Your task to perform on an android device: Go to ESPN.com Image 0: 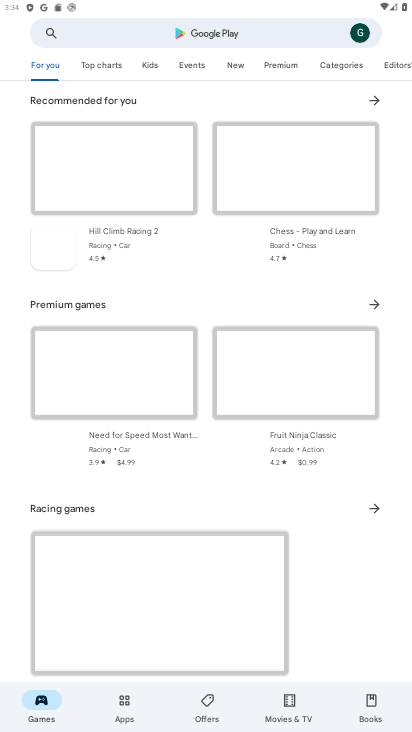
Step 0: press home button
Your task to perform on an android device: Go to ESPN.com Image 1: 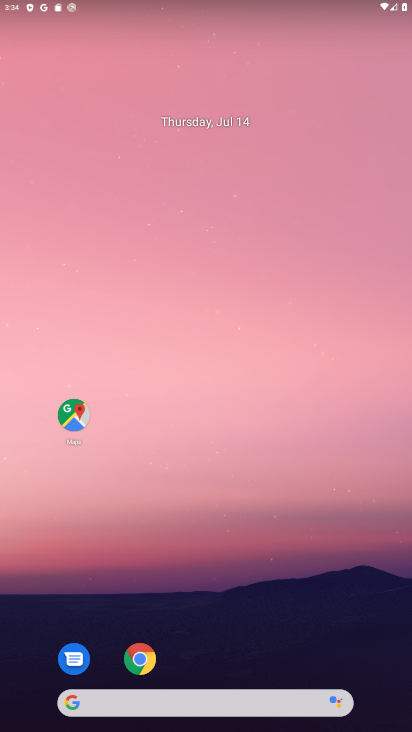
Step 1: drag from (332, 638) to (348, 147)
Your task to perform on an android device: Go to ESPN.com Image 2: 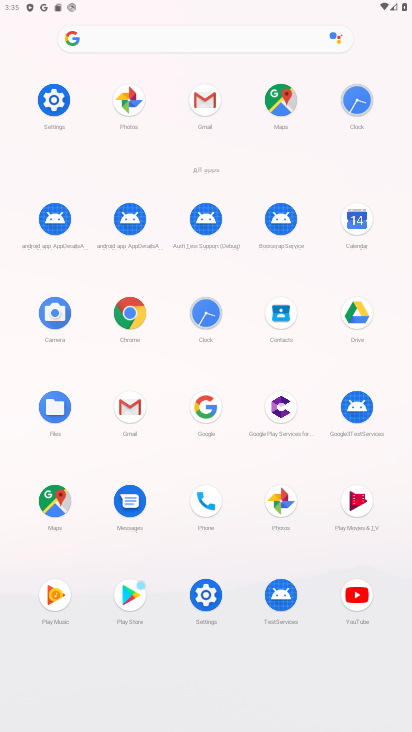
Step 2: click (126, 310)
Your task to perform on an android device: Go to ESPN.com Image 3: 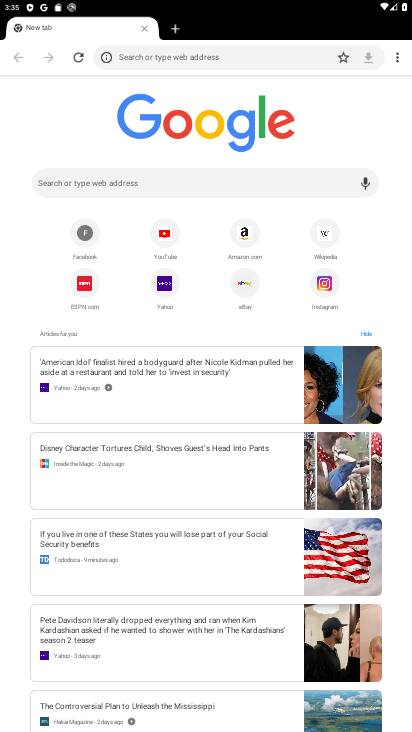
Step 3: click (186, 56)
Your task to perform on an android device: Go to ESPN.com Image 4: 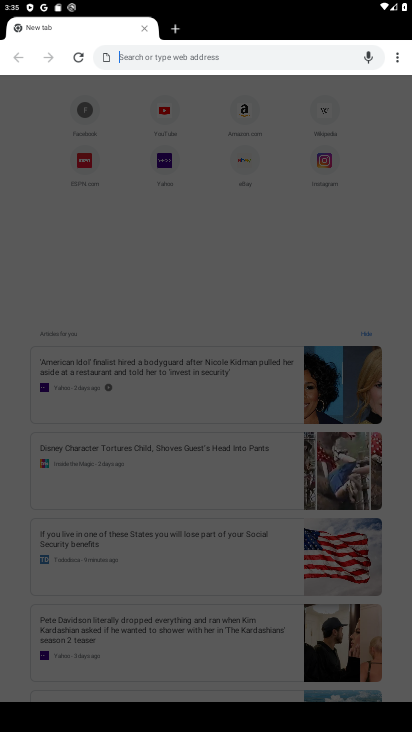
Step 4: type "espn.com"
Your task to perform on an android device: Go to ESPN.com Image 5: 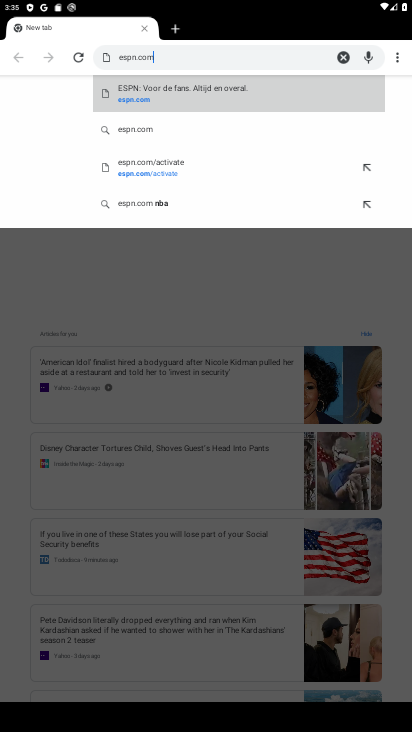
Step 5: click (160, 94)
Your task to perform on an android device: Go to ESPN.com Image 6: 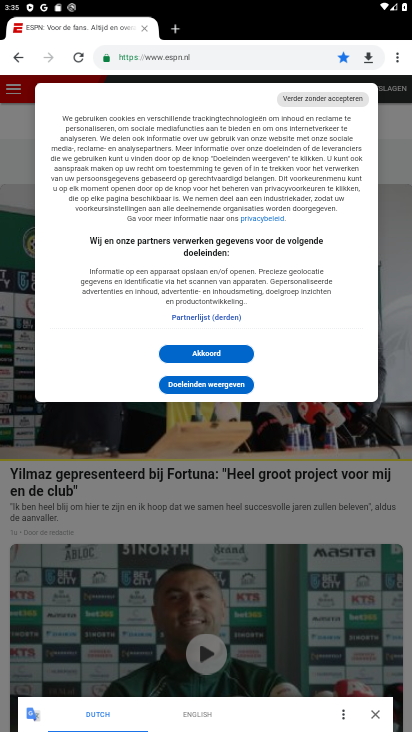
Step 6: task complete